Your task to perform on an android device: Go to Android settings Image 0: 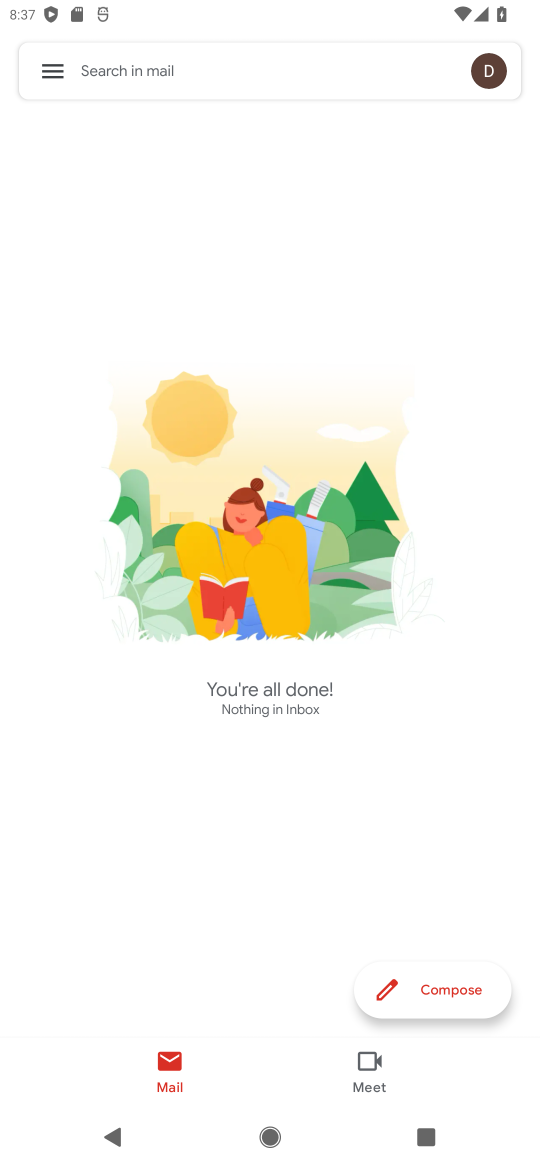
Step 0: press home button
Your task to perform on an android device: Go to Android settings Image 1: 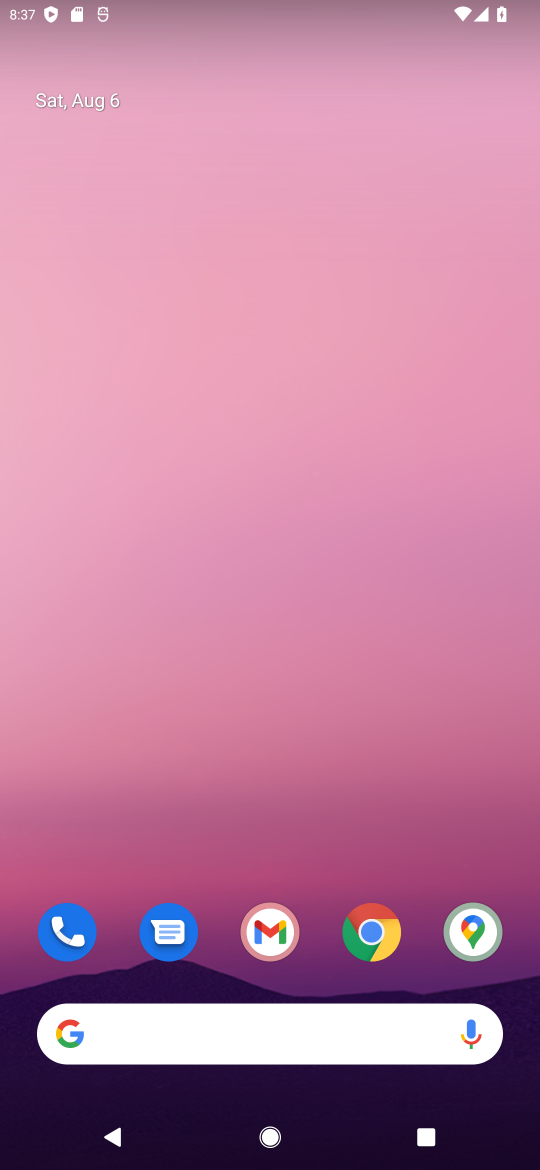
Step 1: drag from (180, 1041) to (326, 333)
Your task to perform on an android device: Go to Android settings Image 2: 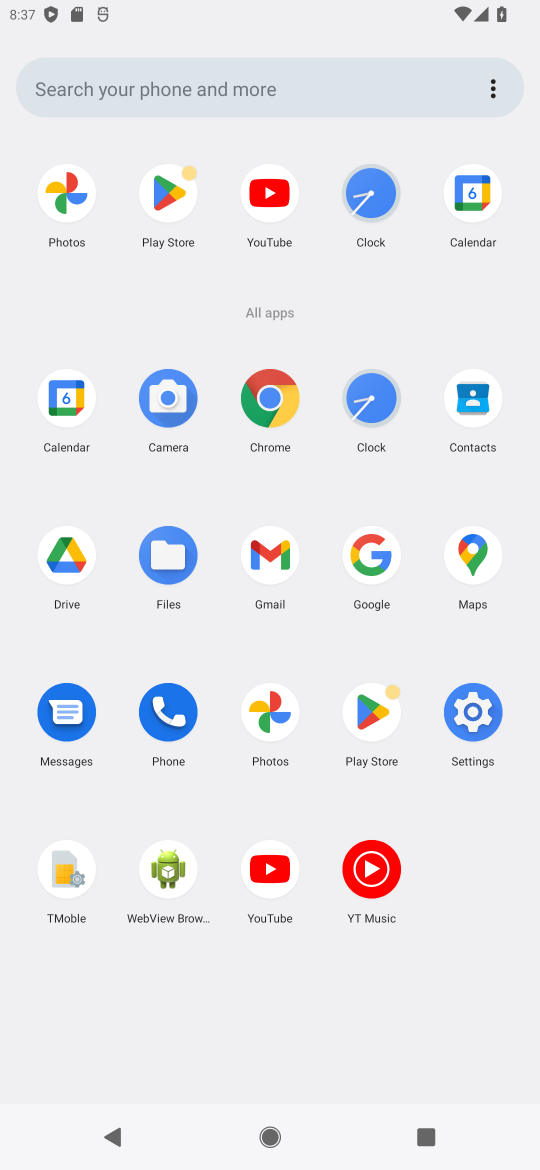
Step 2: click (472, 713)
Your task to perform on an android device: Go to Android settings Image 3: 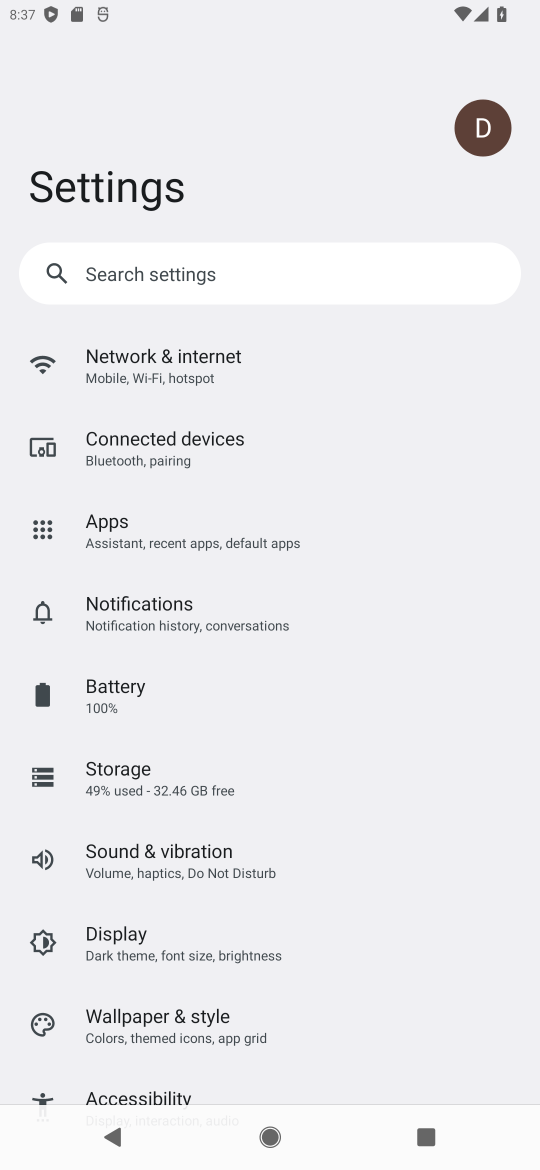
Step 3: task complete